Your task to perform on an android device: Empty the shopping cart on target.com. Search for usb-a to usb-b on target.com, select the first entry, and add it to the cart. Image 0: 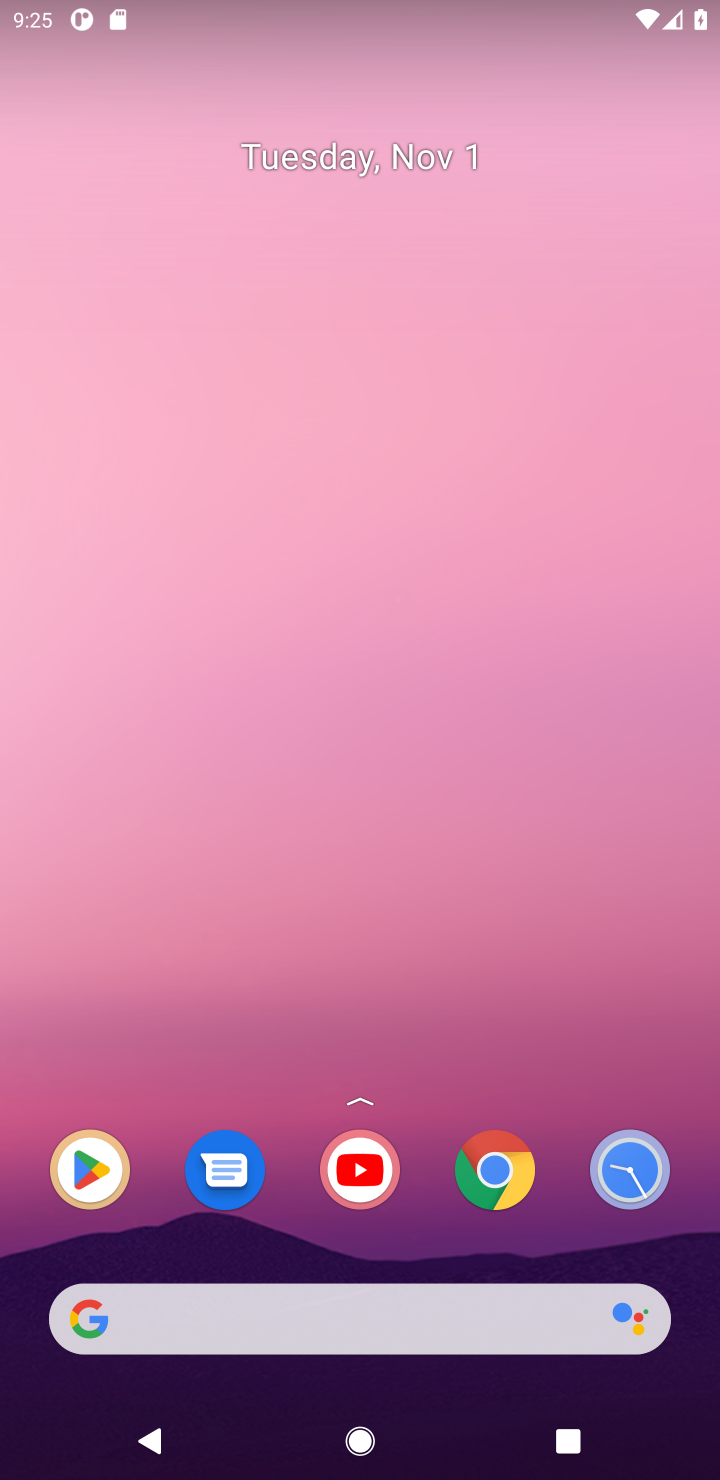
Step 0: click (514, 1181)
Your task to perform on an android device: Empty the shopping cart on target.com. Search for usb-a to usb-b on target.com, select the first entry, and add it to the cart. Image 1: 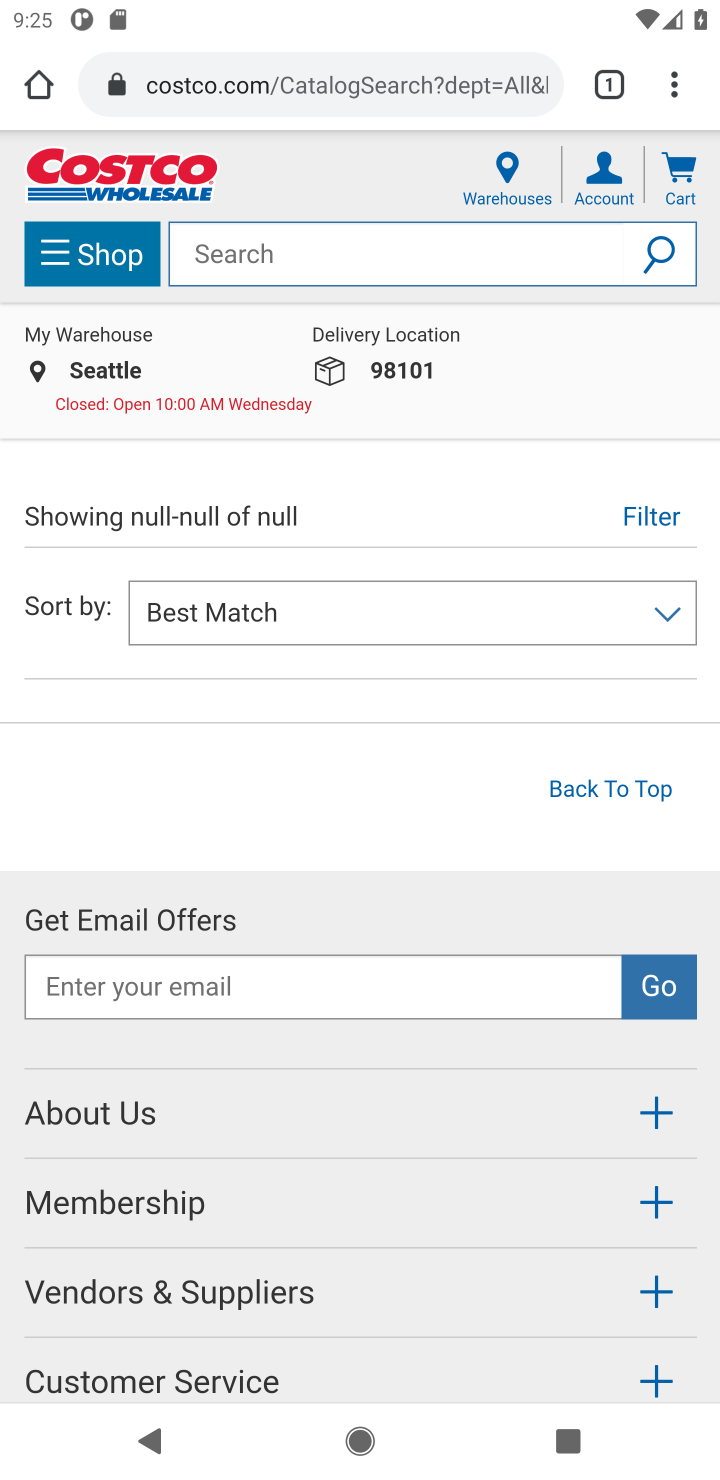
Step 1: click (338, 90)
Your task to perform on an android device: Empty the shopping cart on target.com. Search for usb-a to usb-b on target.com, select the first entry, and add it to the cart. Image 2: 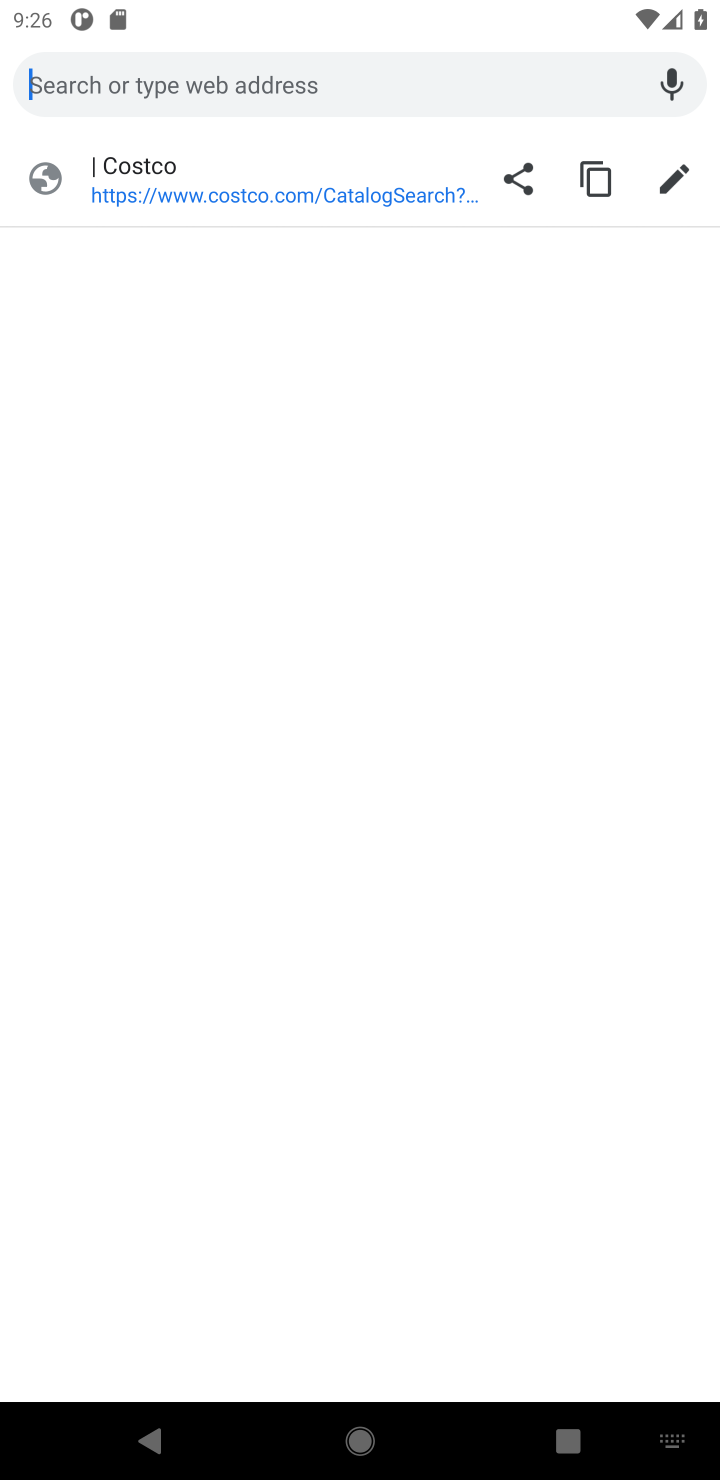
Step 2: type "target"
Your task to perform on an android device: Empty the shopping cart on target.com. Search for usb-a to usb-b on target.com, select the first entry, and add it to the cart. Image 3: 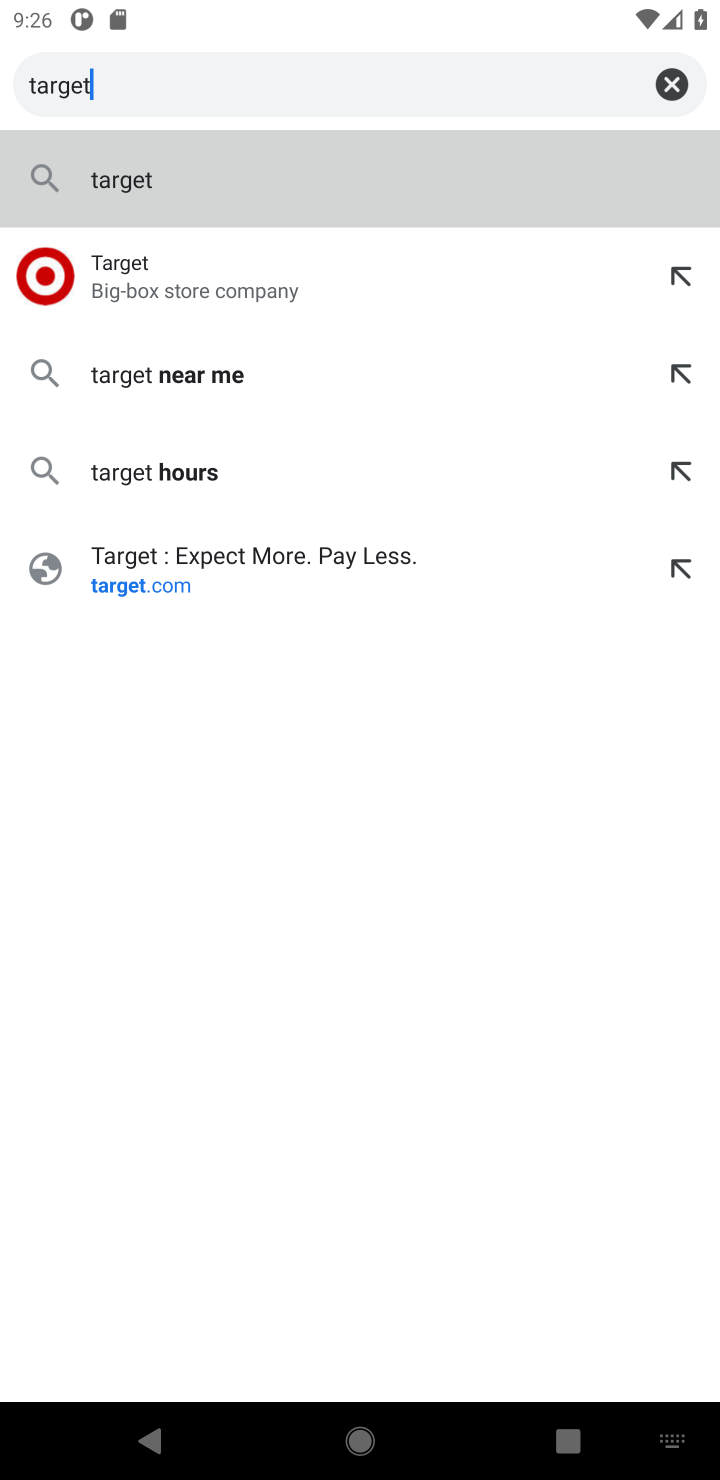
Step 3: click (194, 290)
Your task to perform on an android device: Empty the shopping cart on target.com. Search for usb-a to usb-b on target.com, select the first entry, and add it to the cart. Image 4: 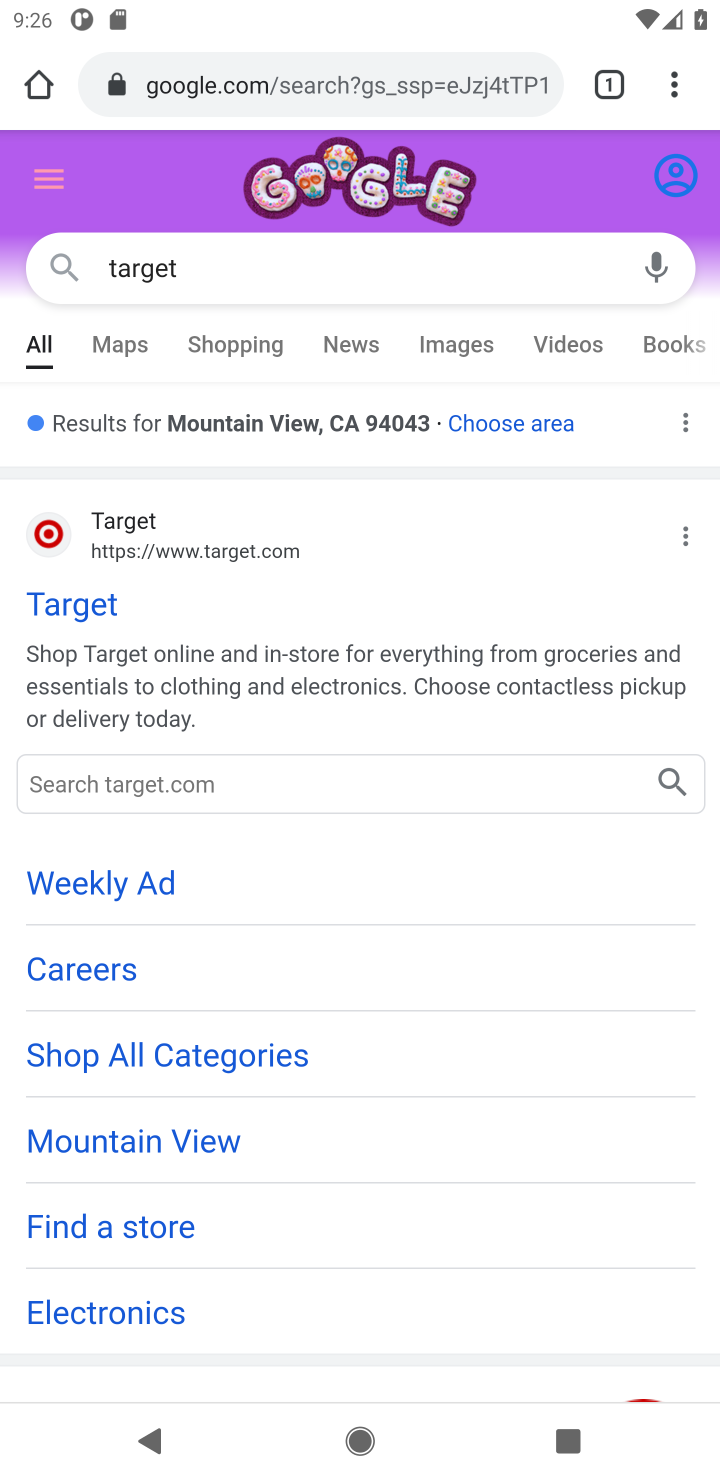
Step 4: click (82, 606)
Your task to perform on an android device: Empty the shopping cart on target.com. Search for usb-a to usb-b on target.com, select the first entry, and add it to the cart. Image 5: 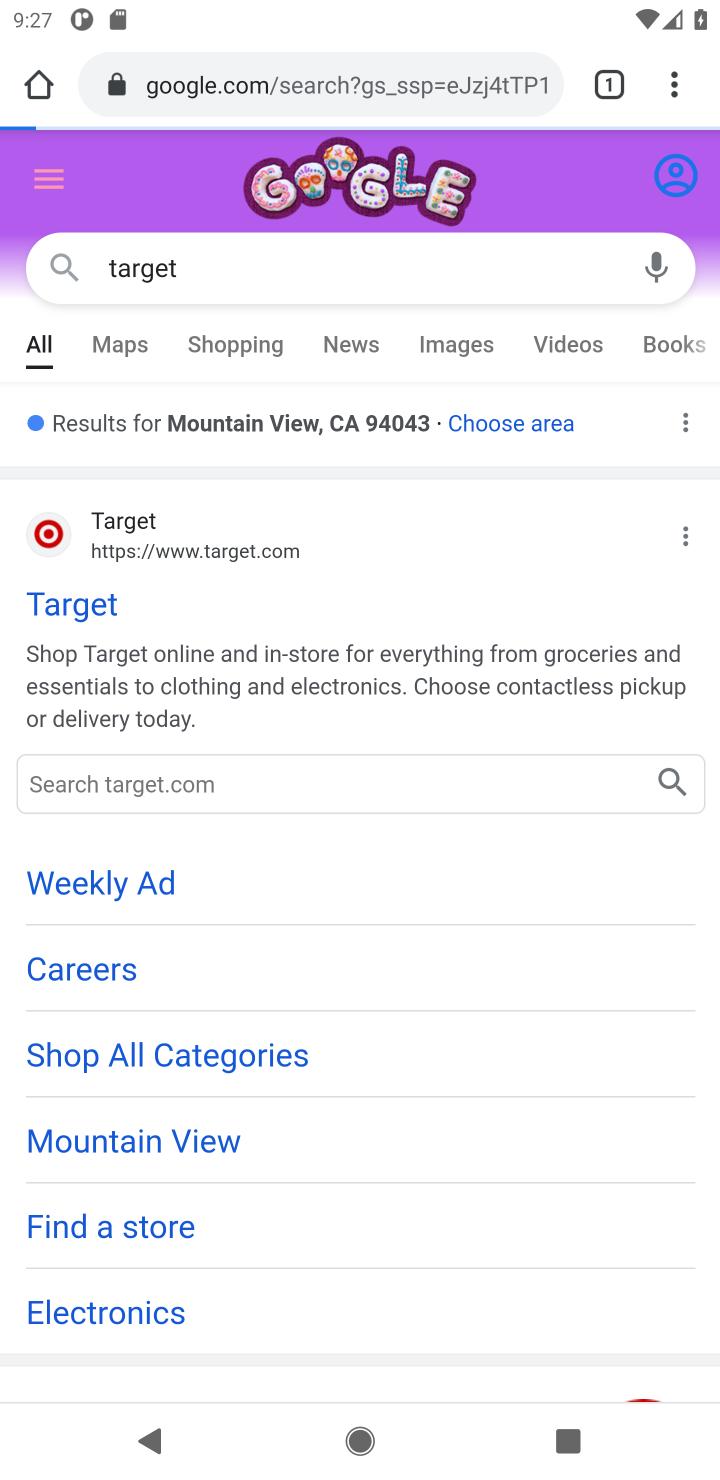
Step 5: click (78, 617)
Your task to perform on an android device: Empty the shopping cart on target.com. Search for usb-a to usb-b on target.com, select the first entry, and add it to the cart. Image 6: 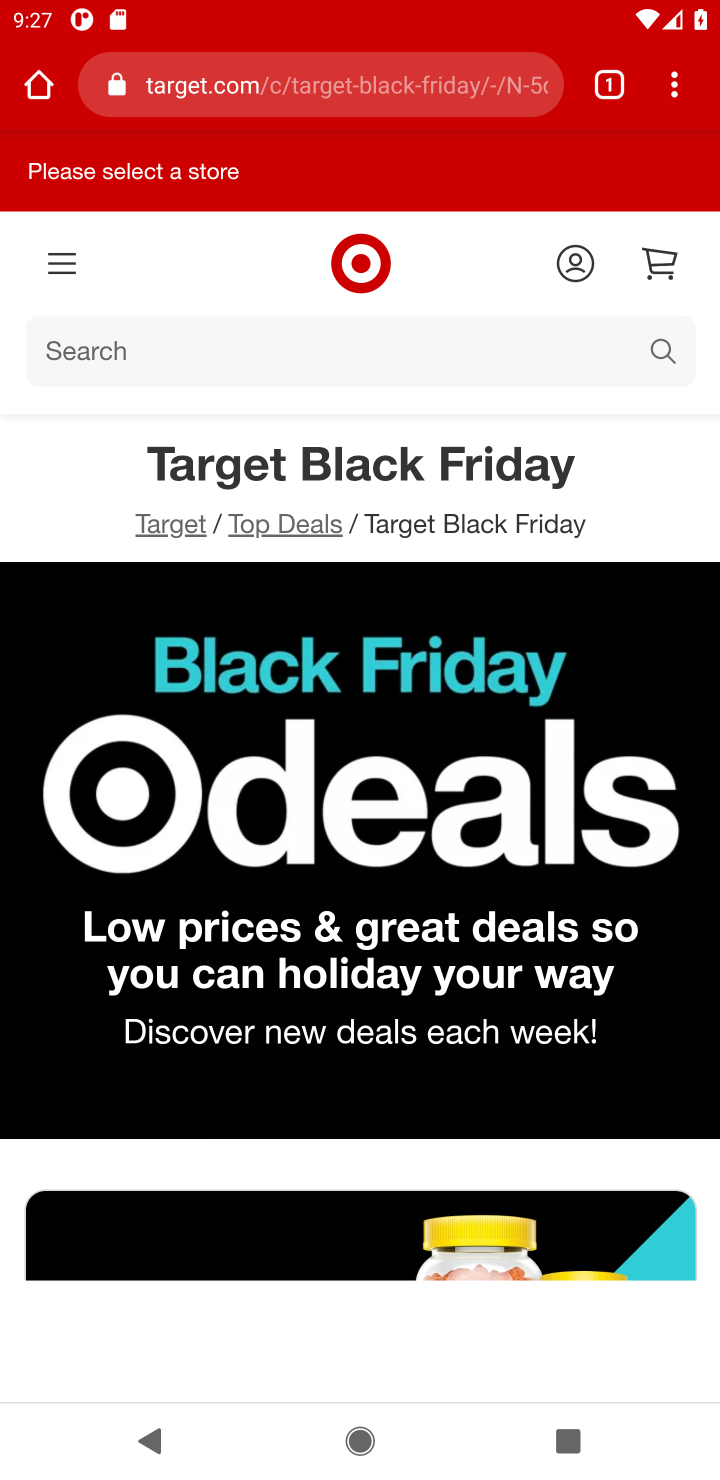
Step 6: click (560, 334)
Your task to perform on an android device: Empty the shopping cart on target.com. Search for usb-a to usb-b on target.com, select the first entry, and add it to the cart. Image 7: 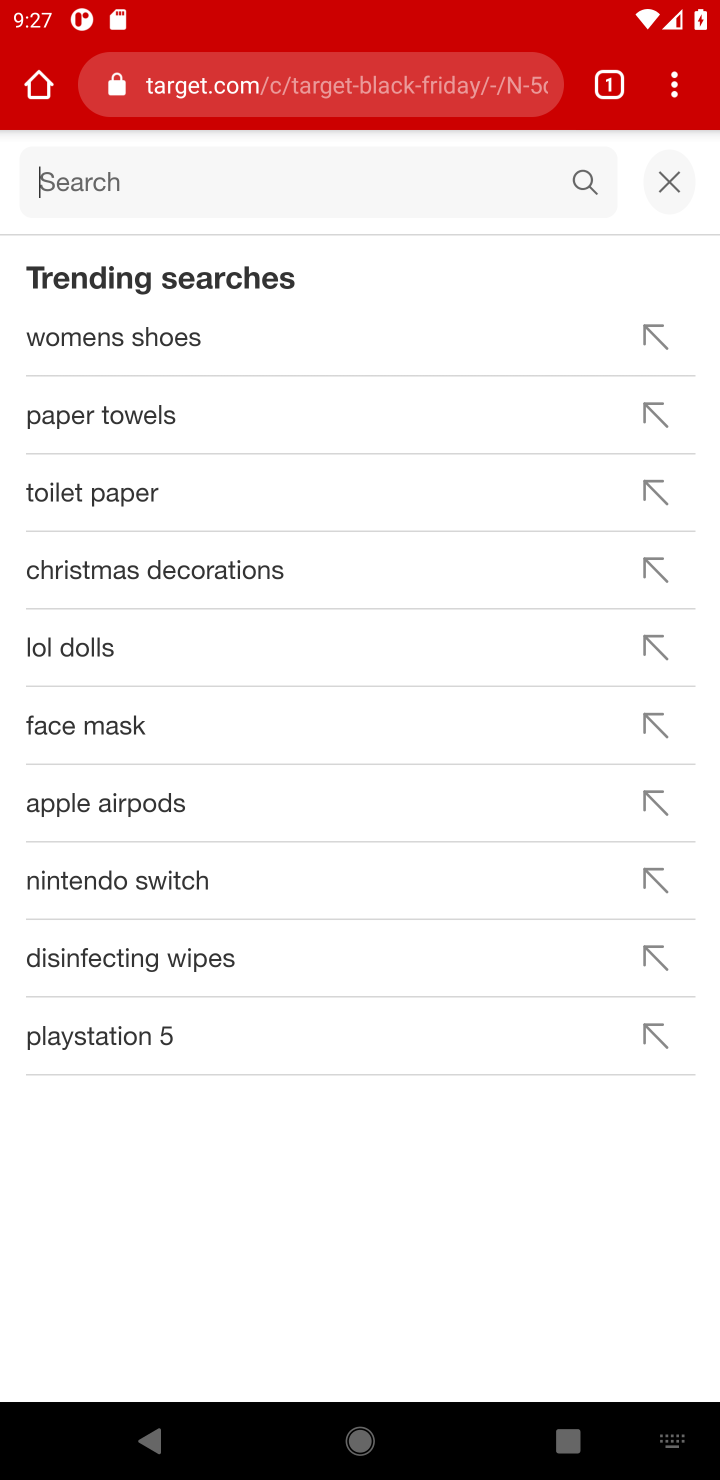
Step 7: click (440, 201)
Your task to perform on an android device: Empty the shopping cart on target.com. Search for usb-a to usb-b on target.com, select the first entry, and add it to the cart. Image 8: 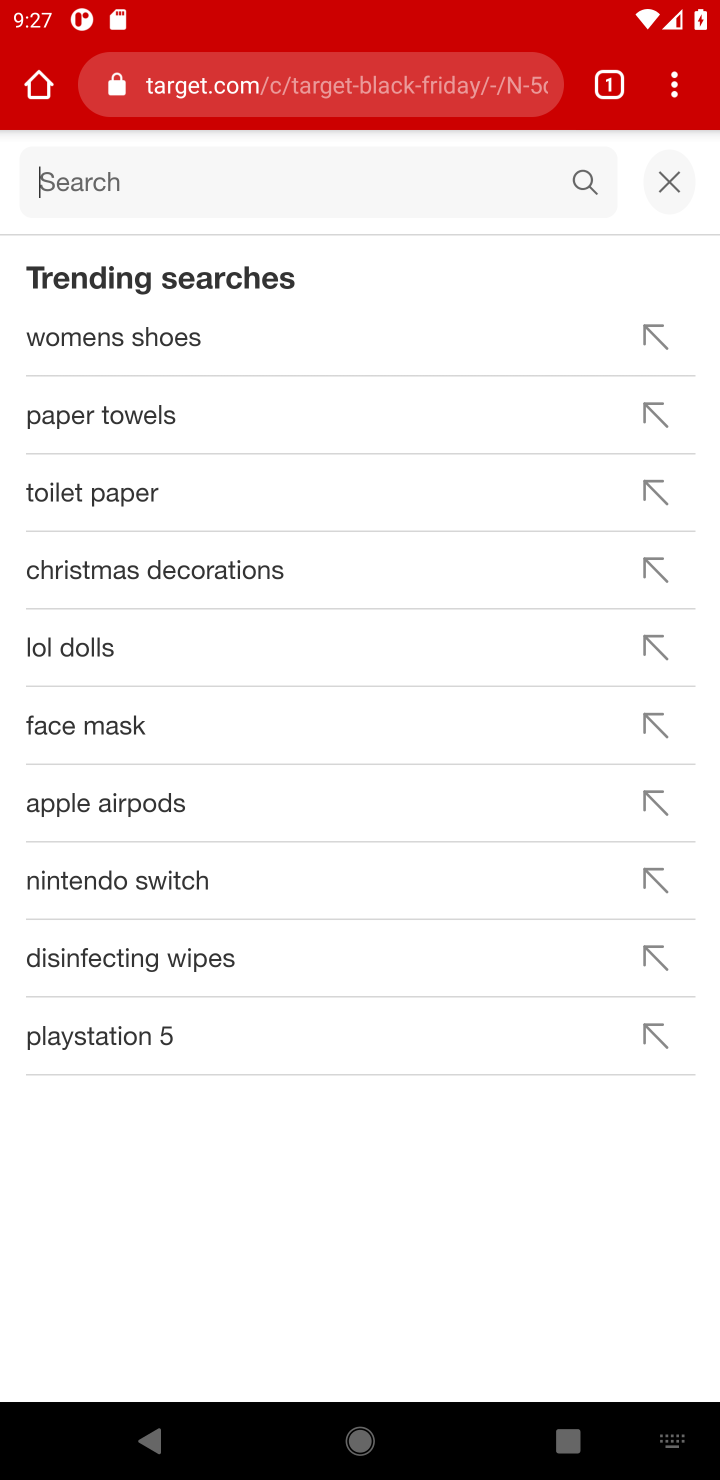
Step 8: type "usb-a to usb-b"
Your task to perform on an android device: Empty the shopping cart on target.com. Search for usb-a to usb-b on target.com, select the first entry, and add it to the cart. Image 9: 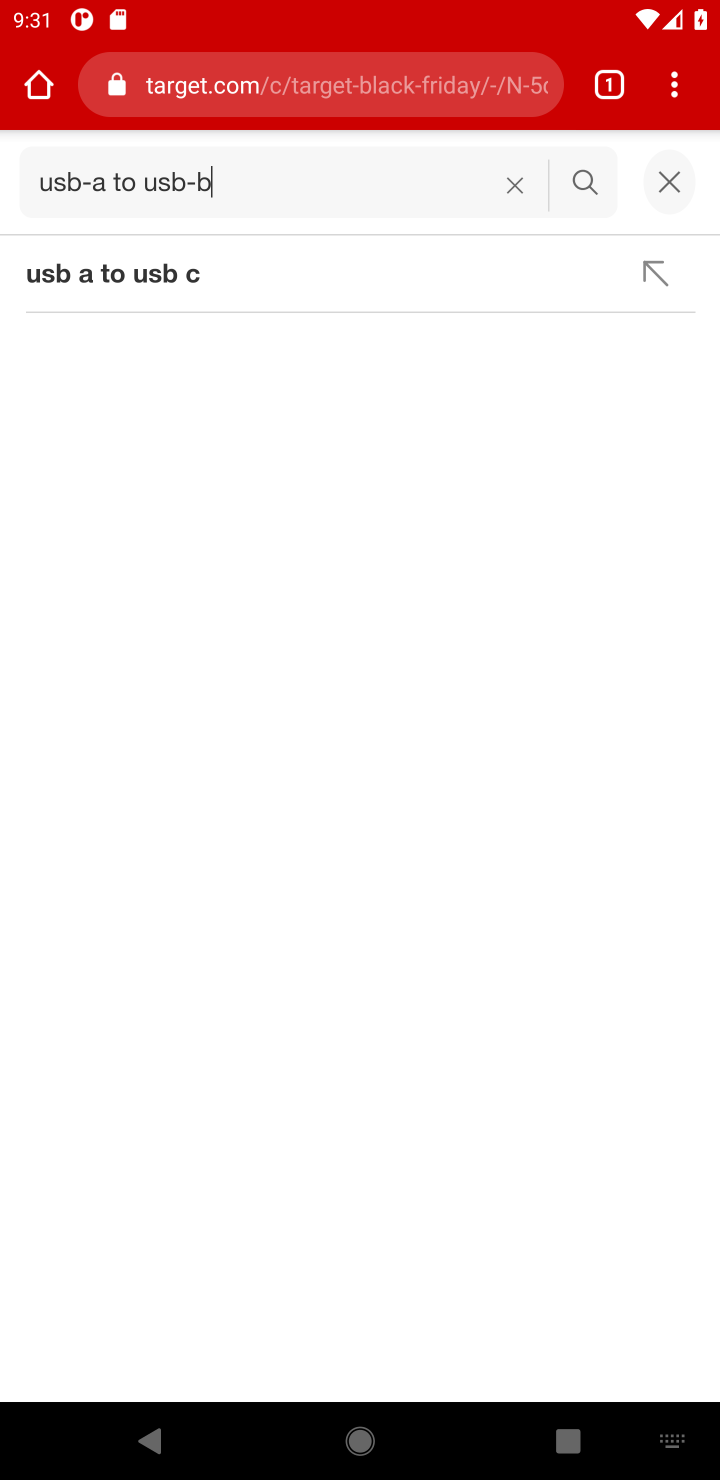
Step 9: task complete